Your task to perform on an android device: change text size in settings app Image 0: 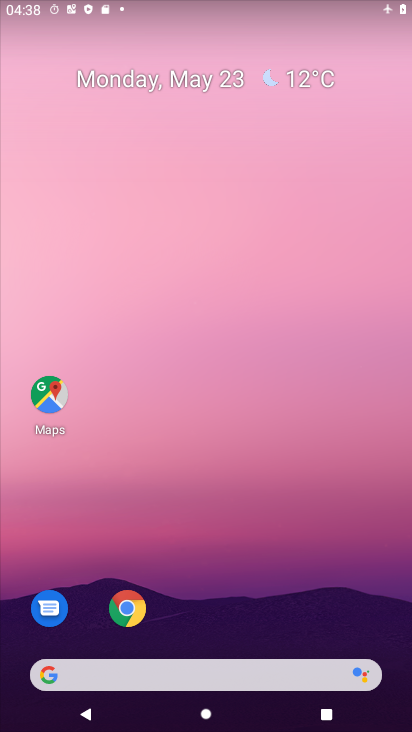
Step 0: drag from (307, 603) to (215, 76)
Your task to perform on an android device: change text size in settings app Image 1: 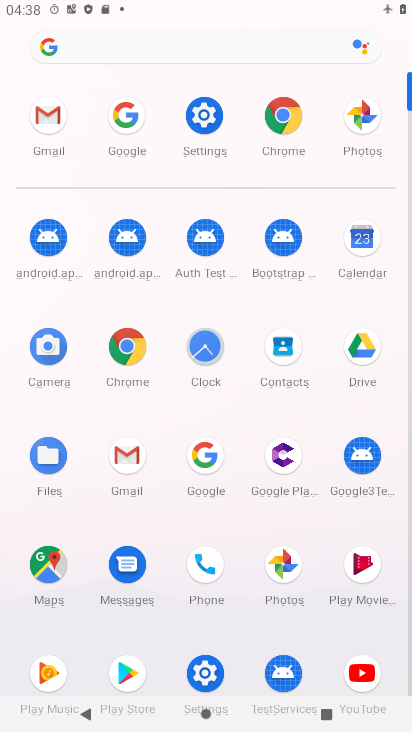
Step 1: click (194, 120)
Your task to perform on an android device: change text size in settings app Image 2: 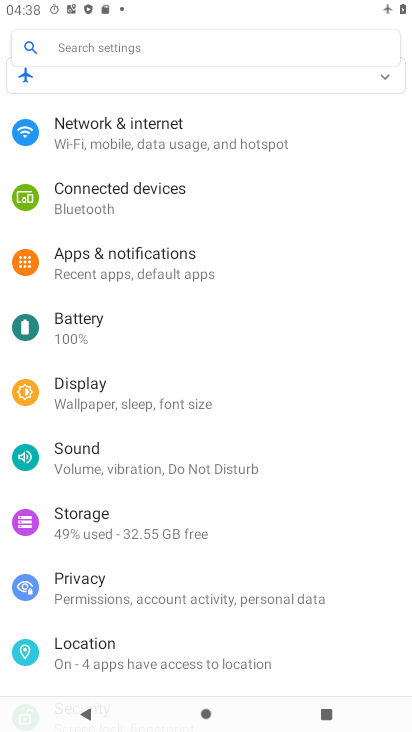
Step 2: click (160, 390)
Your task to perform on an android device: change text size in settings app Image 3: 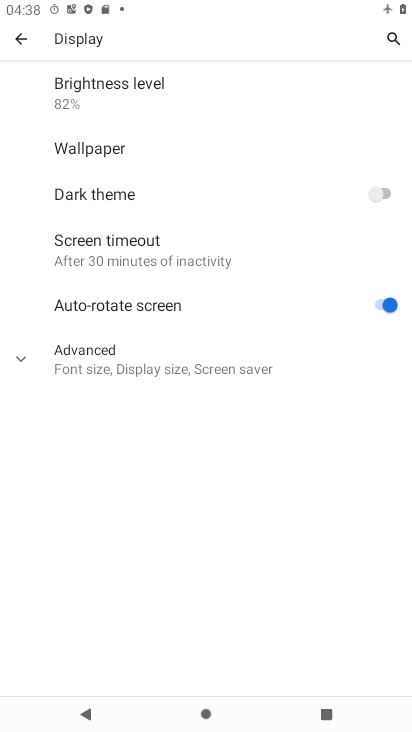
Step 3: click (142, 365)
Your task to perform on an android device: change text size in settings app Image 4: 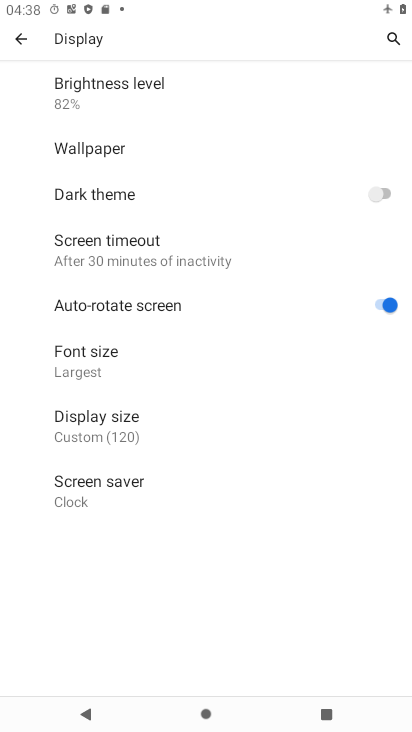
Step 4: click (141, 343)
Your task to perform on an android device: change text size in settings app Image 5: 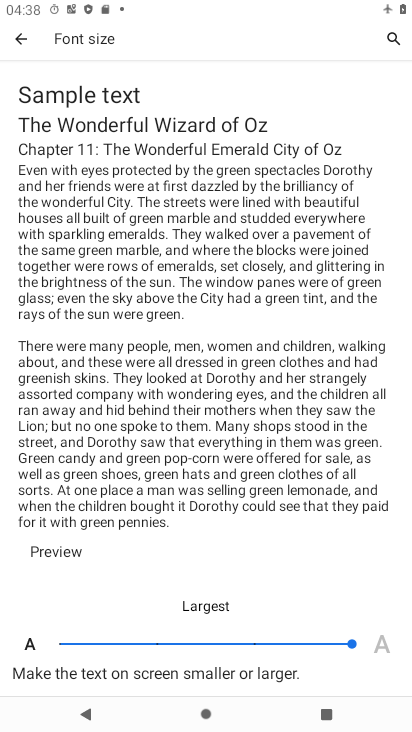
Step 5: click (276, 649)
Your task to perform on an android device: change text size in settings app Image 6: 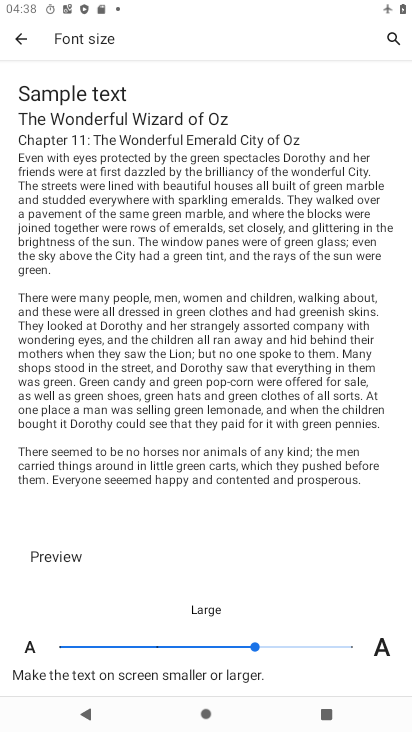
Step 6: task complete